Your task to perform on an android device: Open Google Chrome Image 0: 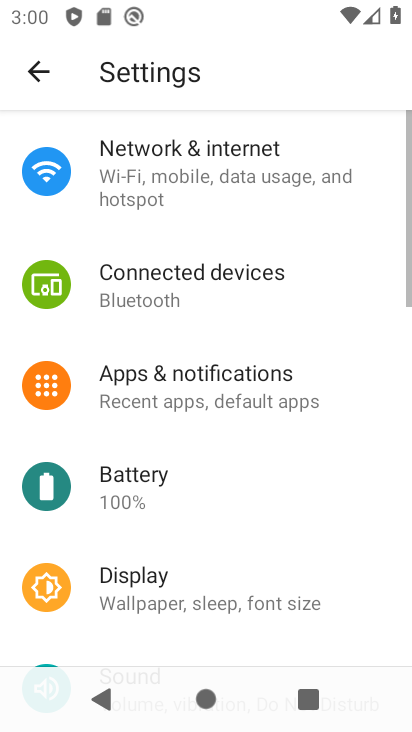
Step 0: press home button
Your task to perform on an android device: Open Google Chrome Image 1: 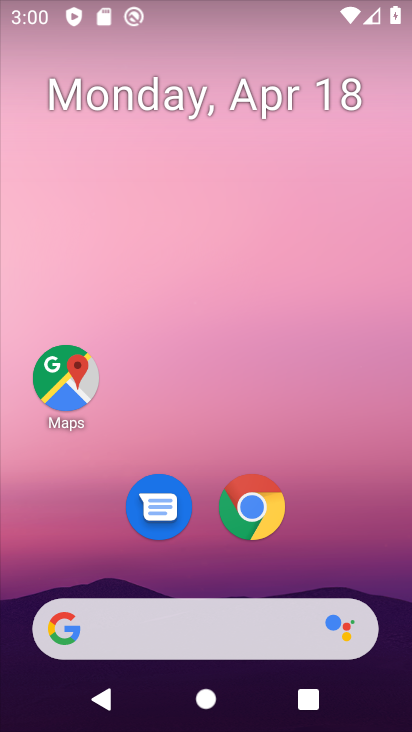
Step 1: drag from (216, 394) to (259, 78)
Your task to perform on an android device: Open Google Chrome Image 2: 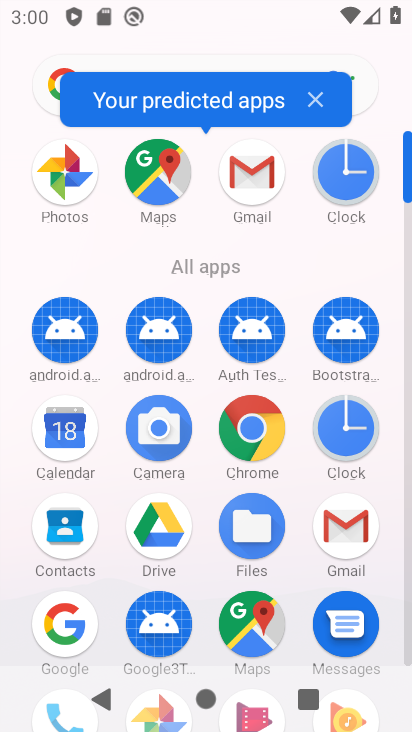
Step 2: click (249, 426)
Your task to perform on an android device: Open Google Chrome Image 3: 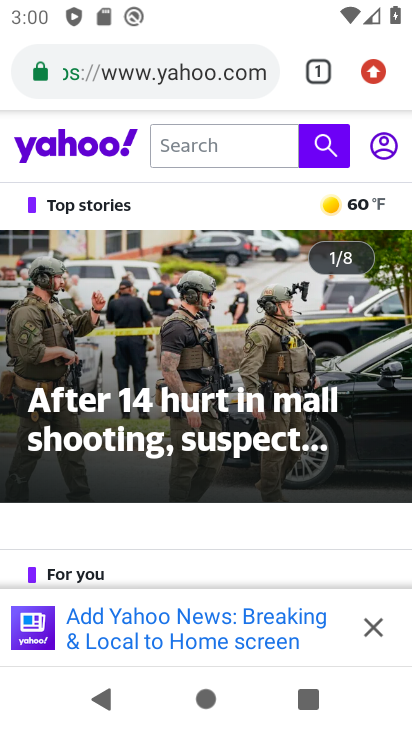
Step 3: task complete